Your task to perform on an android device: toggle pop-ups in chrome Image 0: 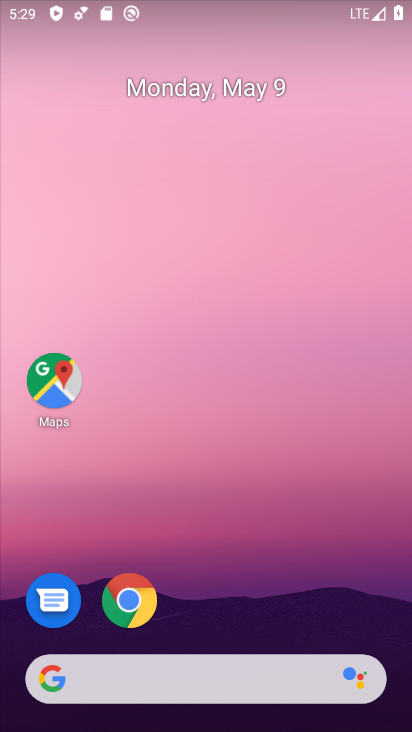
Step 0: click (145, 599)
Your task to perform on an android device: toggle pop-ups in chrome Image 1: 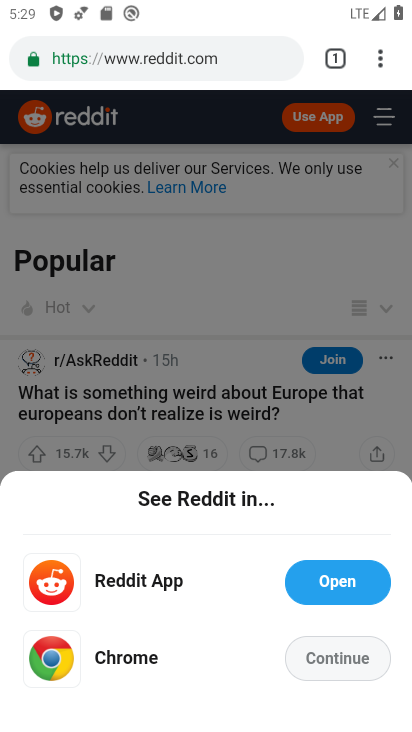
Step 1: click (339, 415)
Your task to perform on an android device: toggle pop-ups in chrome Image 2: 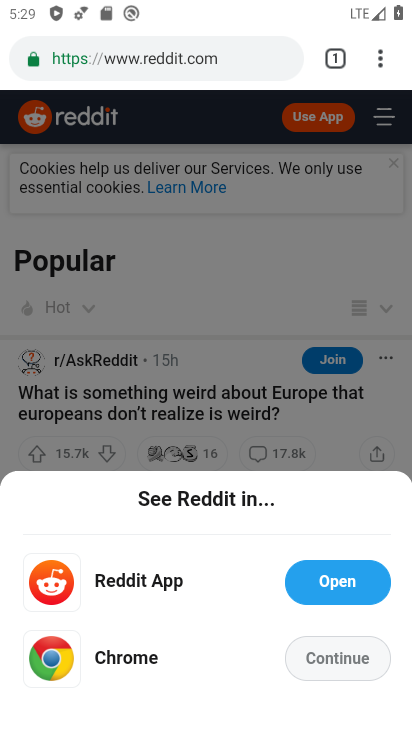
Step 2: click (344, 657)
Your task to perform on an android device: toggle pop-ups in chrome Image 3: 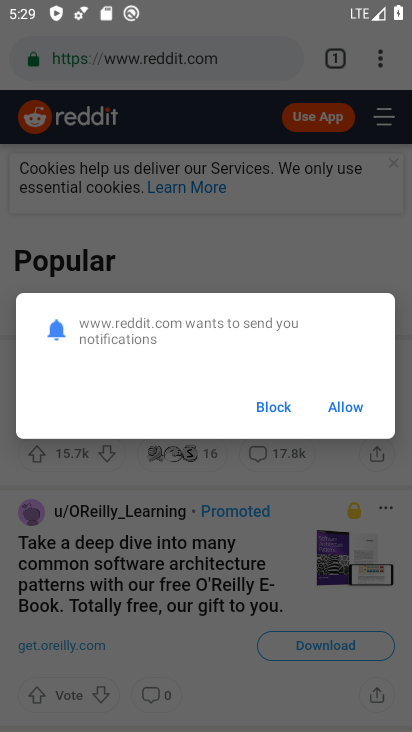
Step 3: click (348, 406)
Your task to perform on an android device: toggle pop-ups in chrome Image 4: 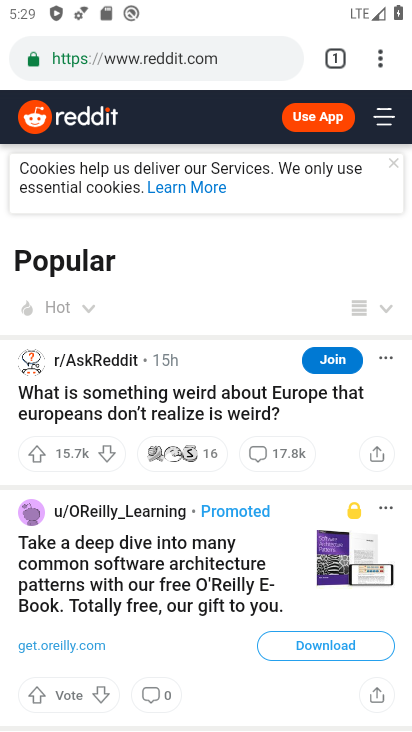
Step 4: click (377, 58)
Your task to perform on an android device: toggle pop-ups in chrome Image 5: 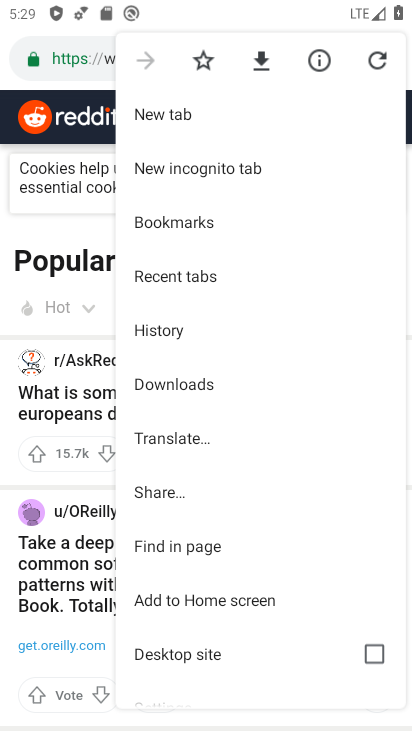
Step 5: drag from (206, 591) to (230, 376)
Your task to perform on an android device: toggle pop-ups in chrome Image 6: 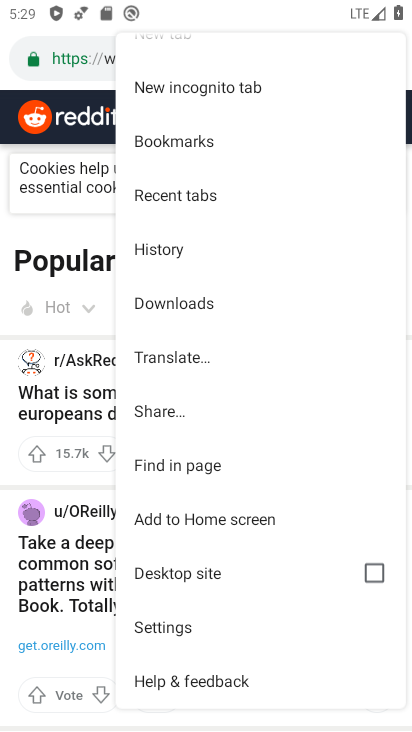
Step 6: click (180, 627)
Your task to perform on an android device: toggle pop-ups in chrome Image 7: 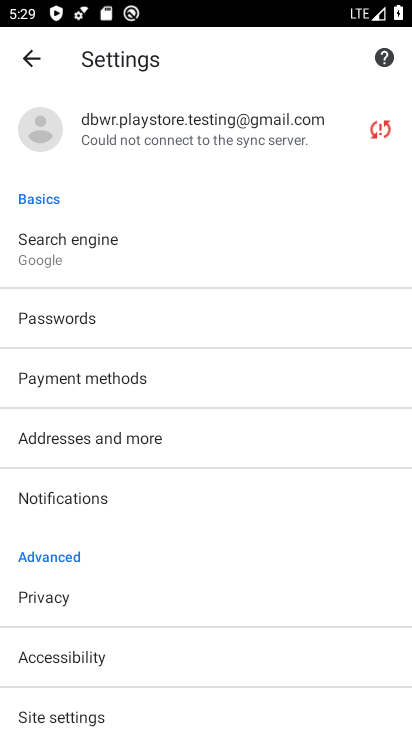
Step 7: drag from (90, 583) to (145, 363)
Your task to perform on an android device: toggle pop-ups in chrome Image 8: 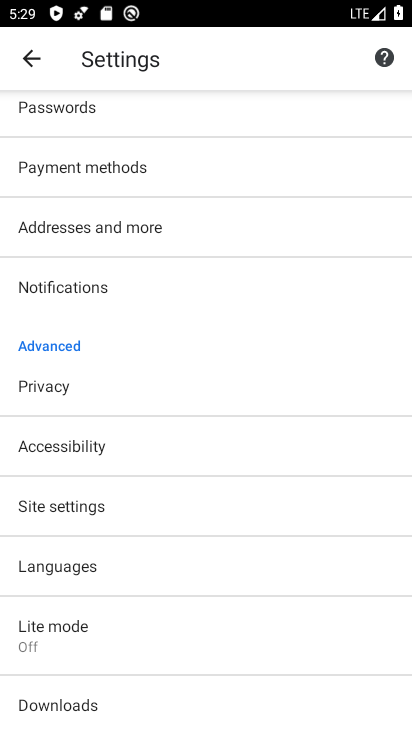
Step 8: click (72, 513)
Your task to perform on an android device: toggle pop-ups in chrome Image 9: 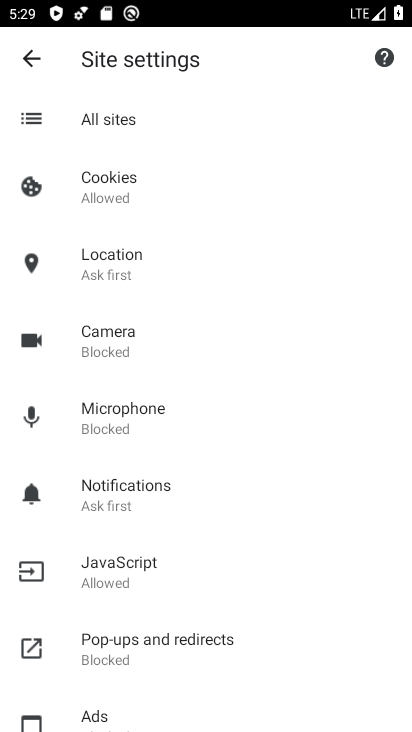
Step 9: click (133, 644)
Your task to perform on an android device: toggle pop-ups in chrome Image 10: 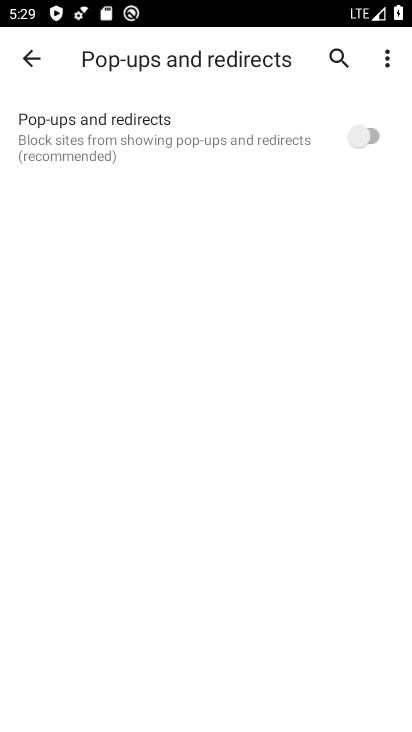
Step 10: click (375, 130)
Your task to perform on an android device: toggle pop-ups in chrome Image 11: 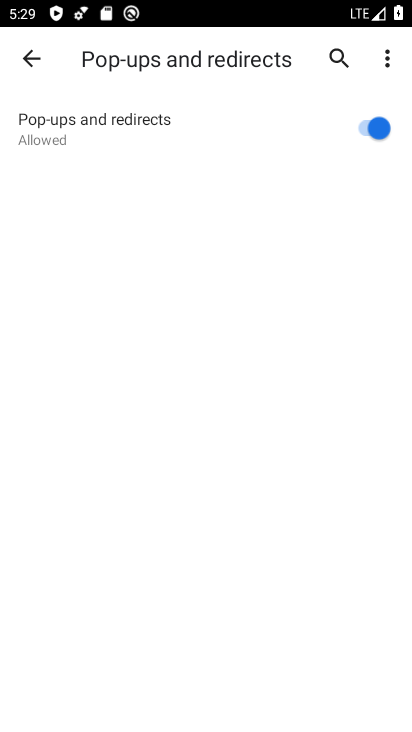
Step 11: task complete